Your task to perform on an android device: Open calendar and show me the first week of next month Image 0: 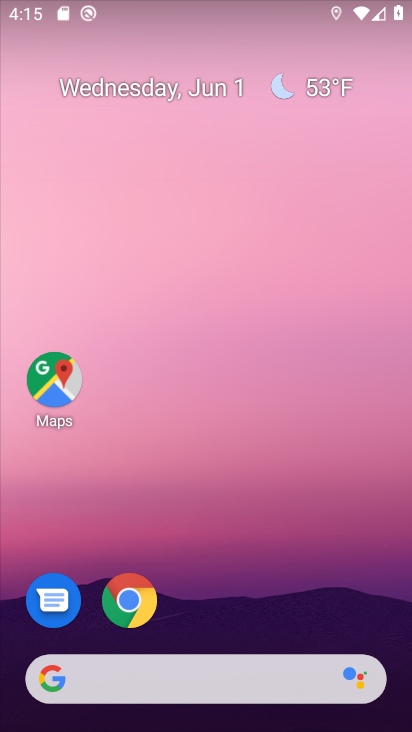
Step 0: drag from (205, 675) to (92, 102)
Your task to perform on an android device: Open calendar and show me the first week of next month Image 1: 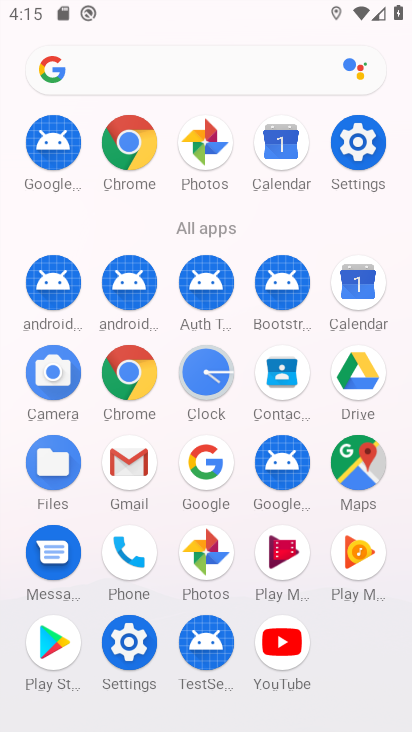
Step 1: click (357, 287)
Your task to perform on an android device: Open calendar and show me the first week of next month Image 2: 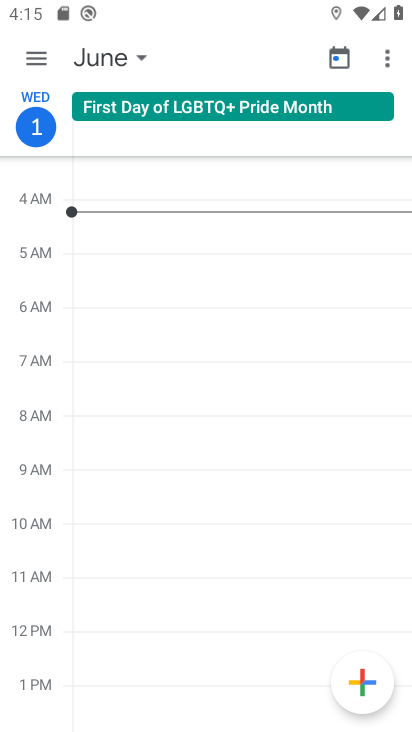
Step 2: press back button
Your task to perform on an android device: Open calendar and show me the first week of next month Image 3: 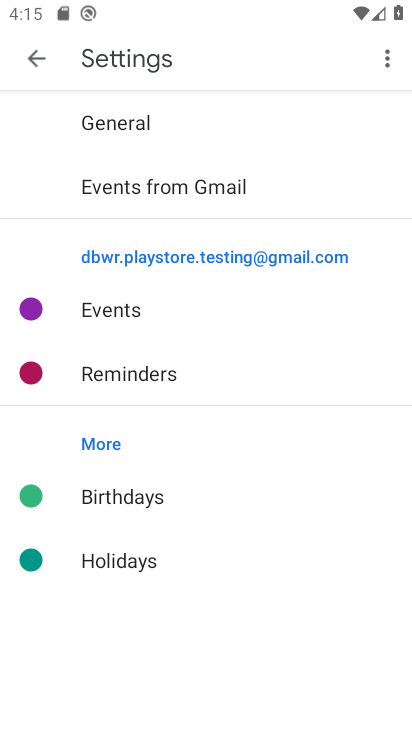
Step 3: click (35, 60)
Your task to perform on an android device: Open calendar and show me the first week of next month Image 4: 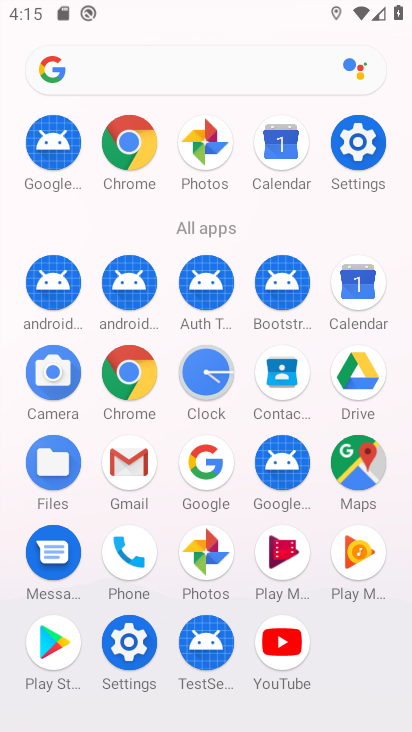
Step 4: click (363, 281)
Your task to perform on an android device: Open calendar and show me the first week of next month Image 5: 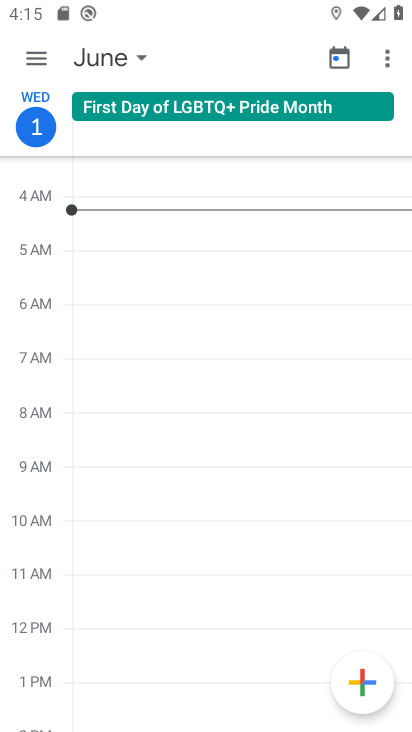
Step 5: click (144, 59)
Your task to perform on an android device: Open calendar and show me the first week of next month Image 6: 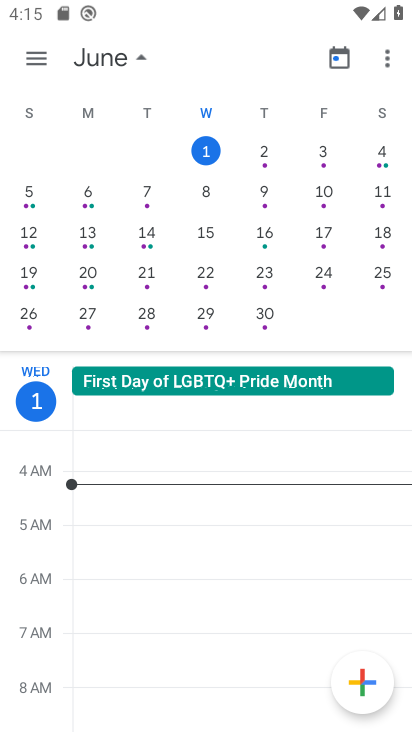
Step 6: task complete